Your task to perform on an android device: toggle notification dots Image 0: 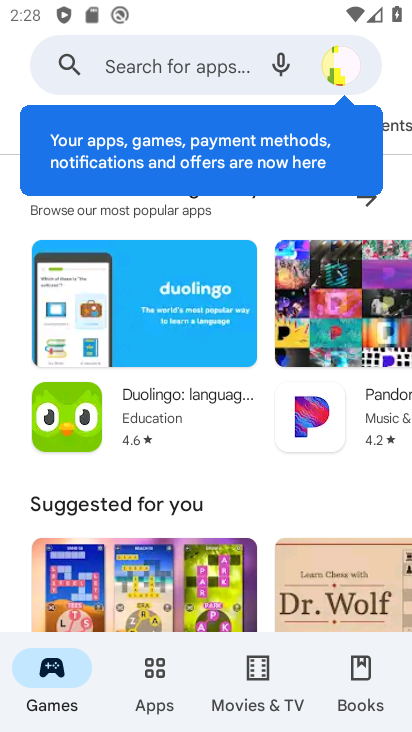
Step 0: press home button
Your task to perform on an android device: toggle notification dots Image 1: 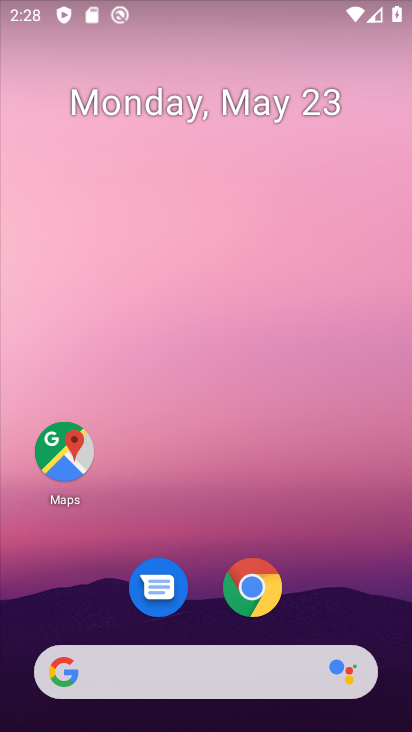
Step 1: drag from (211, 609) to (167, 202)
Your task to perform on an android device: toggle notification dots Image 2: 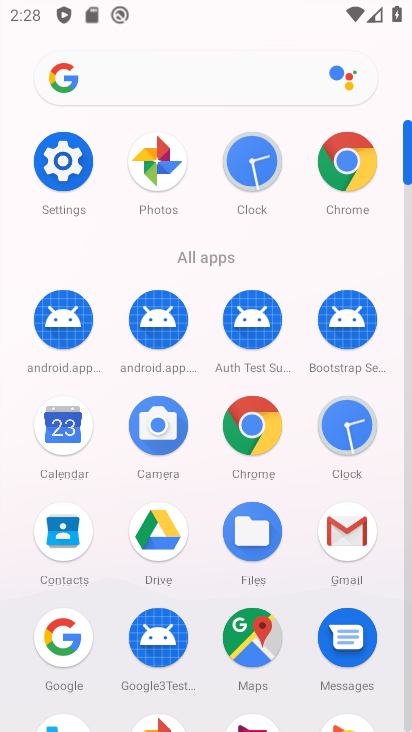
Step 2: click (64, 164)
Your task to perform on an android device: toggle notification dots Image 3: 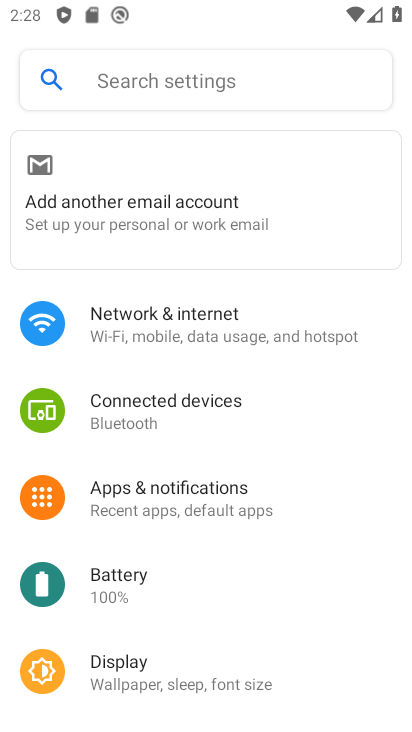
Step 3: click (159, 486)
Your task to perform on an android device: toggle notification dots Image 4: 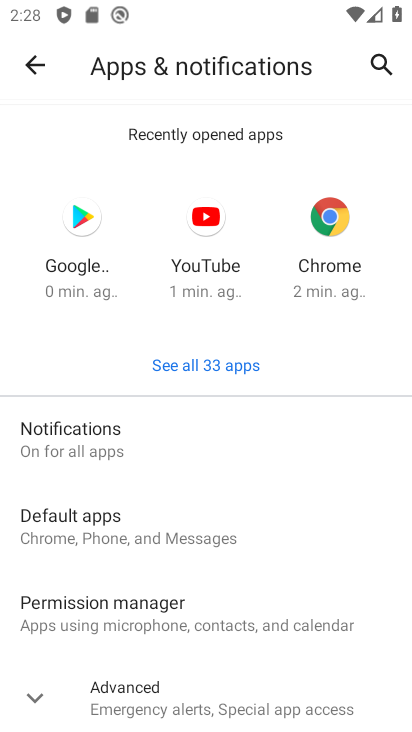
Step 4: click (66, 448)
Your task to perform on an android device: toggle notification dots Image 5: 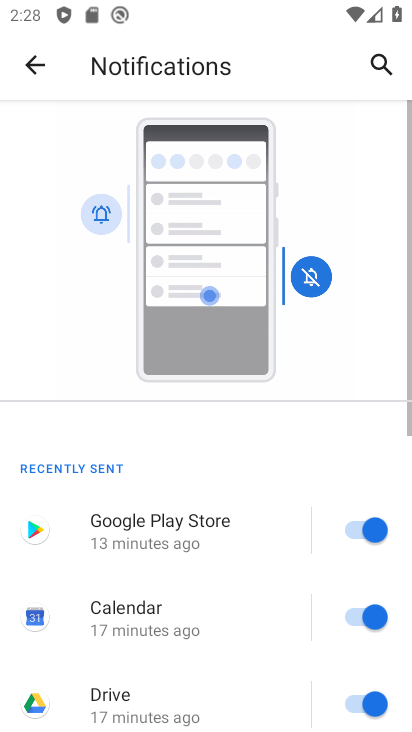
Step 5: drag from (186, 597) to (211, 115)
Your task to perform on an android device: toggle notification dots Image 6: 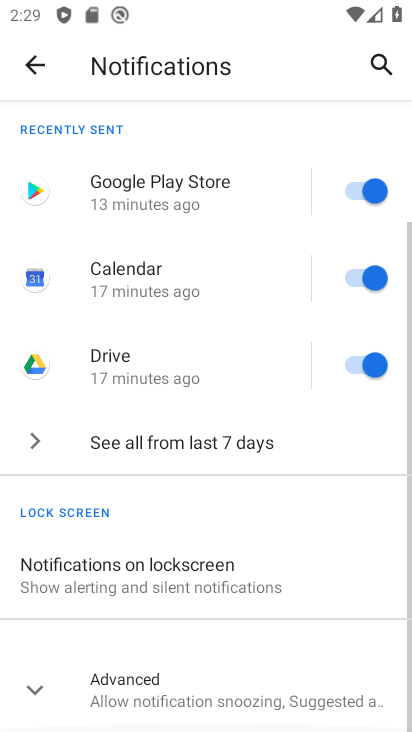
Step 6: drag from (211, 520) to (173, 263)
Your task to perform on an android device: toggle notification dots Image 7: 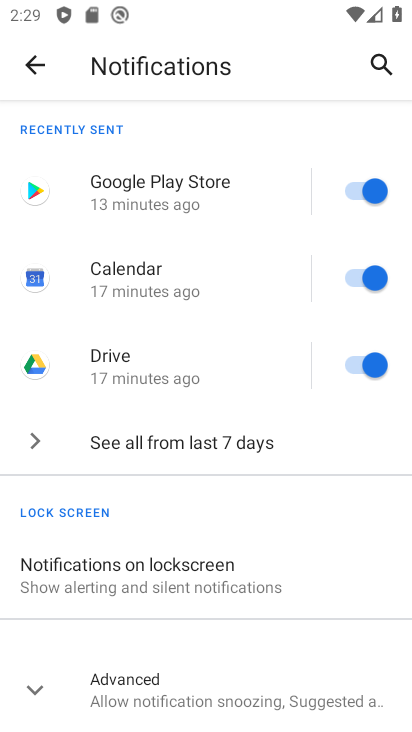
Step 7: click (22, 680)
Your task to perform on an android device: toggle notification dots Image 8: 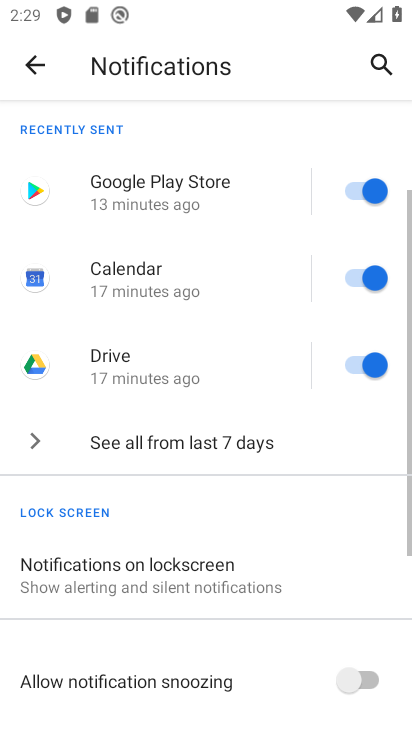
Step 8: drag from (182, 676) to (189, 312)
Your task to perform on an android device: toggle notification dots Image 9: 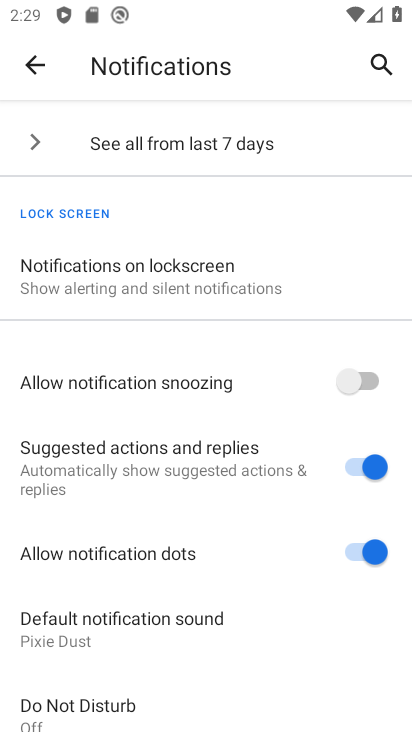
Step 9: drag from (180, 683) to (188, 459)
Your task to perform on an android device: toggle notification dots Image 10: 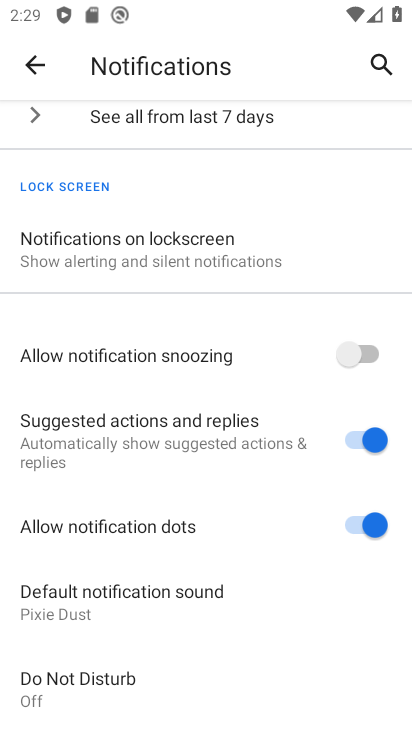
Step 10: click (351, 527)
Your task to perform on an android device: toggle notification dots Image 11: 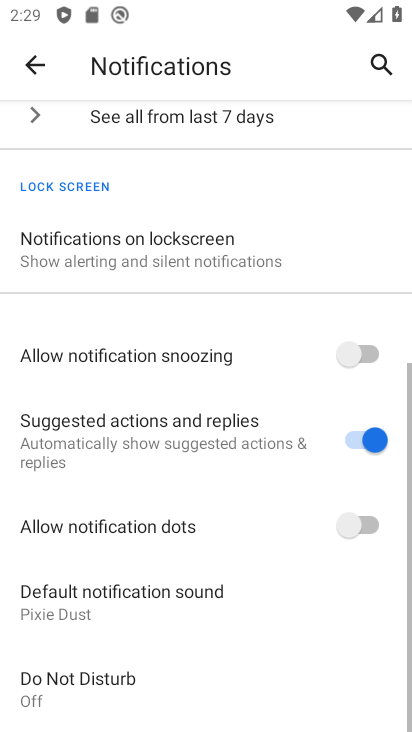
Step 11: task complete